Your task to perform on an android device: Go to display settings Image 0: 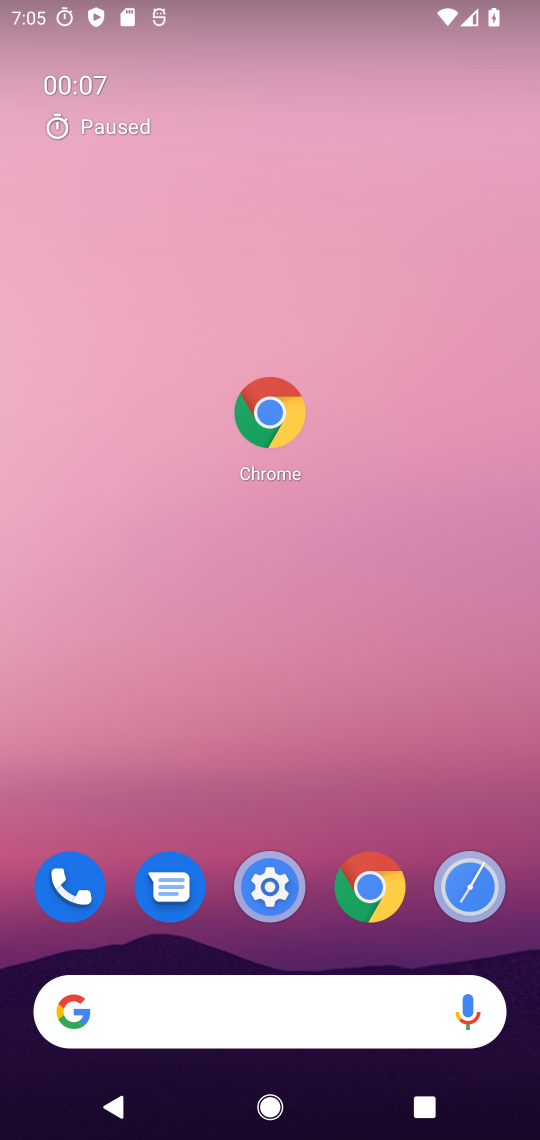
Step 0: drag from (190, 376) to (200, 279)
Your task to perform on an android device: Go to display settings Image 1: 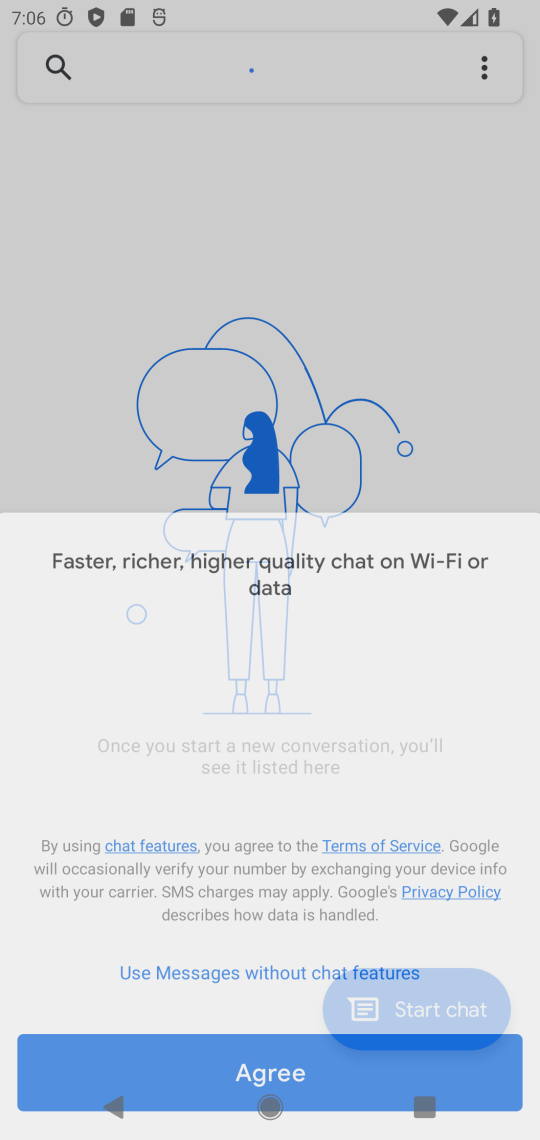
Step 1: press back button
Your task to perform on an android device: Go to display settings Image 2: 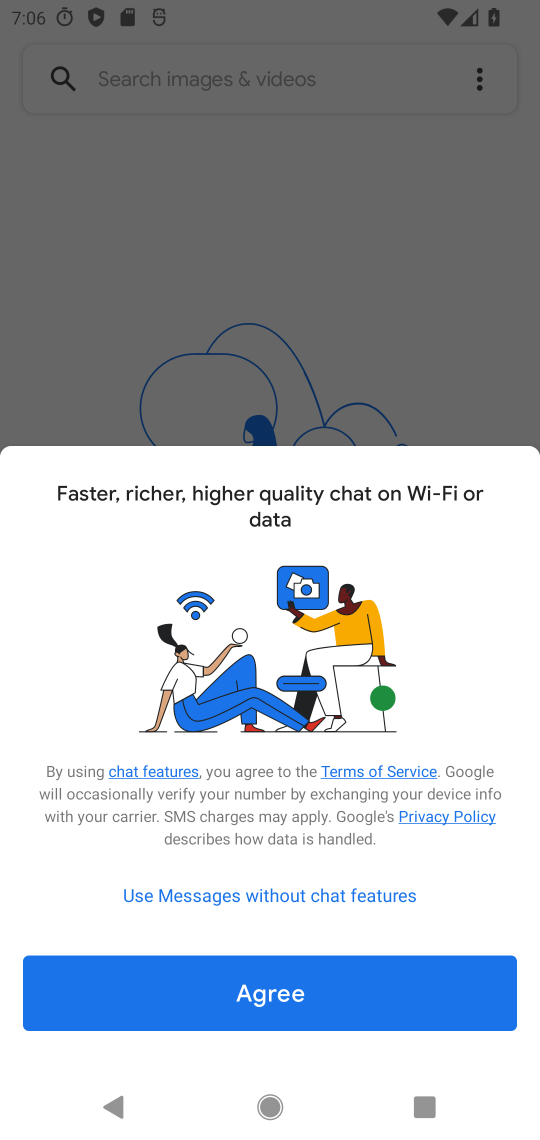
Step 2: press back button
Your task to perform on an android device: Go to display settings Image 3: 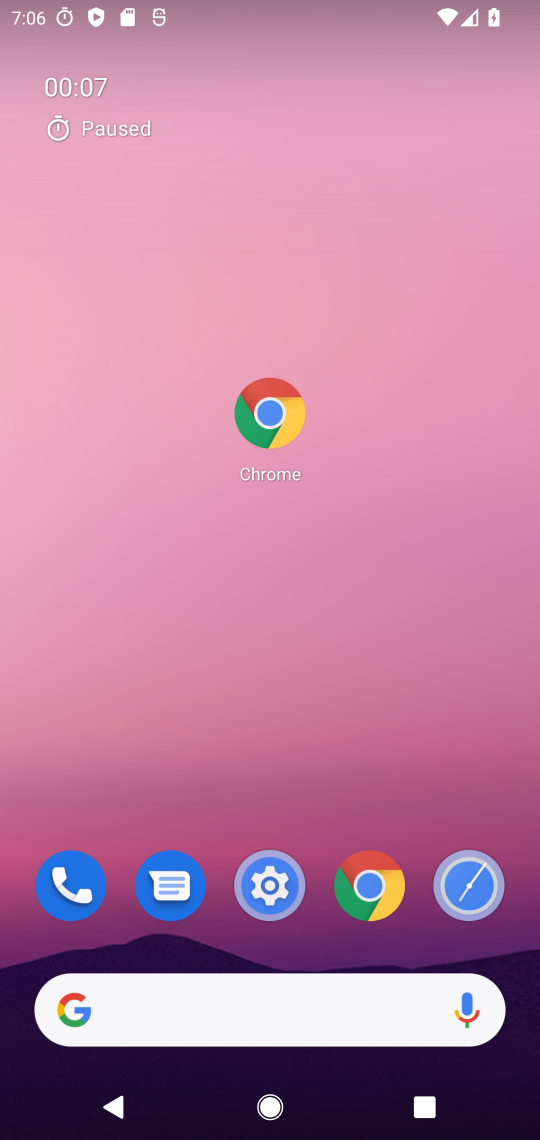
Step 3: press back button
Your task to perform on an android device: Go to display settings Image 4: 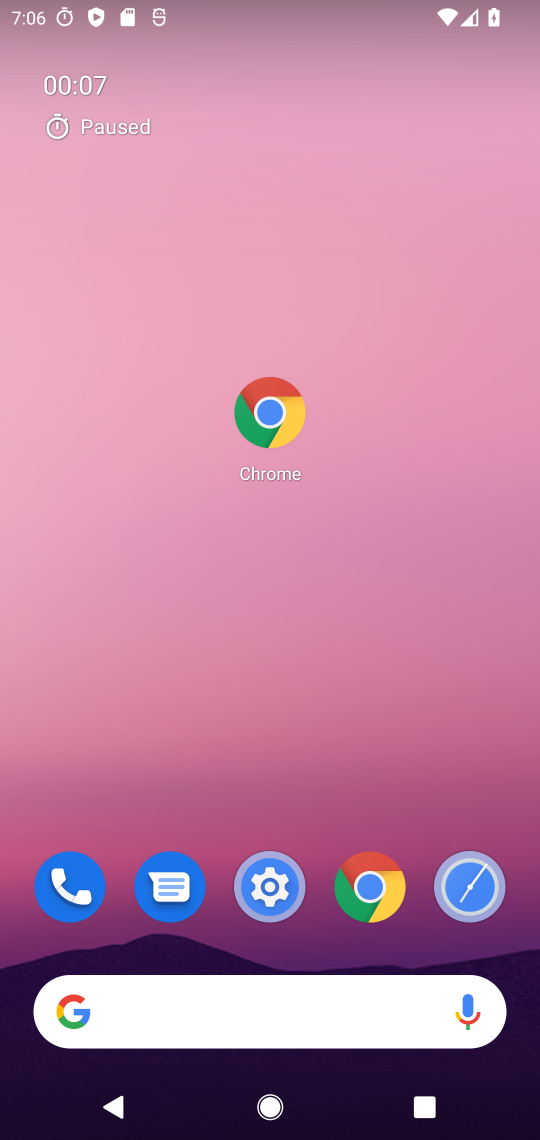
Step 4: press home button
Your task to perform on an android device: Go to display settings Image 5: 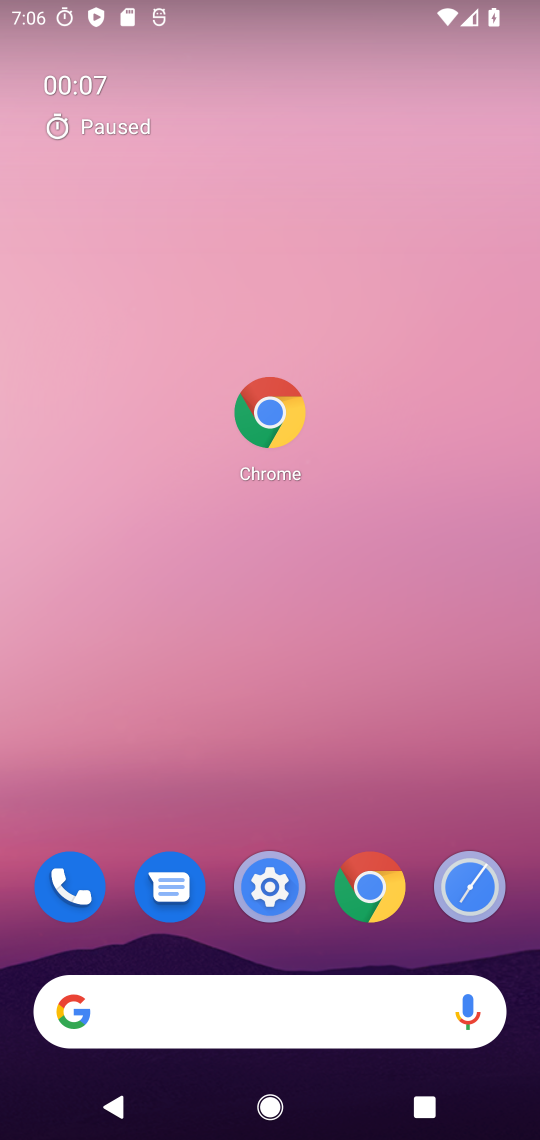
Step 5: drag from (287, 989) to (275, 234)
Your task to perform on an android device: Go to display settings Image 6: 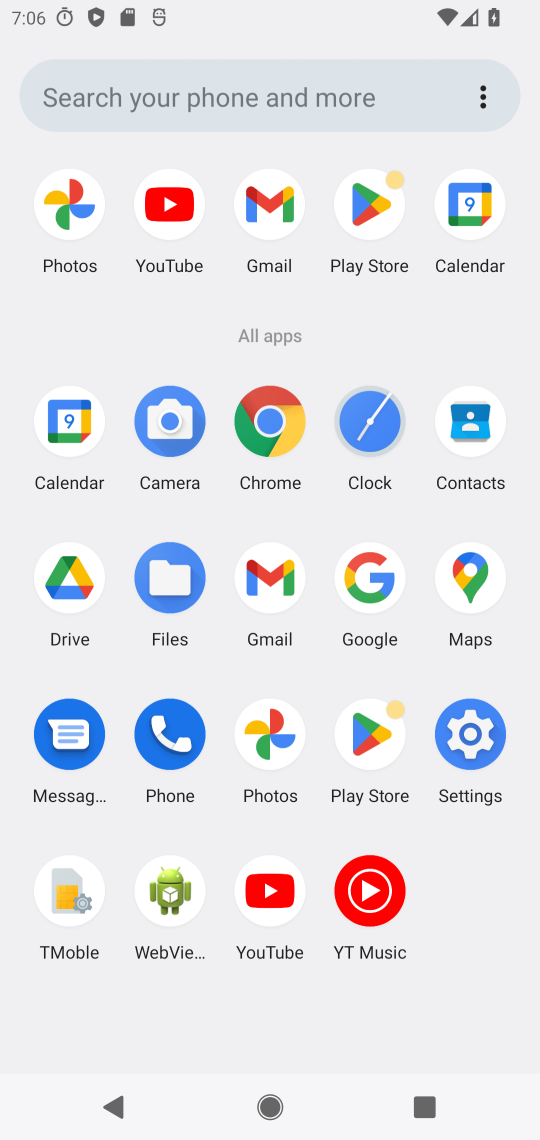
Step 6: drag from (297, 803) to (233, 275)
Your task to perform on an android device: Go to display settings Image 7: 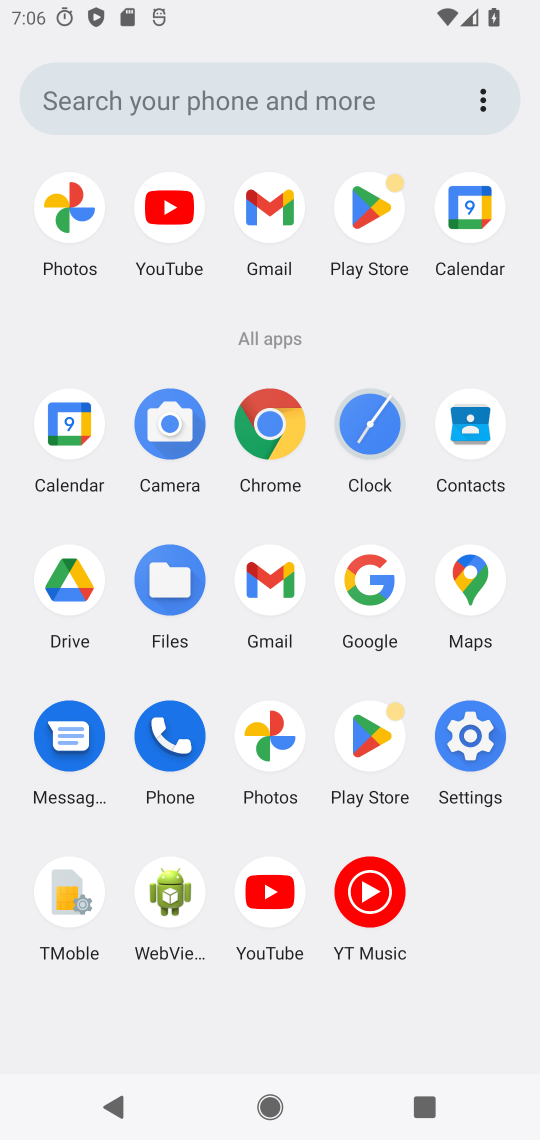
Step 7: click (484, 739)
Your task to perform on an android device: Go to display settings Image 8: 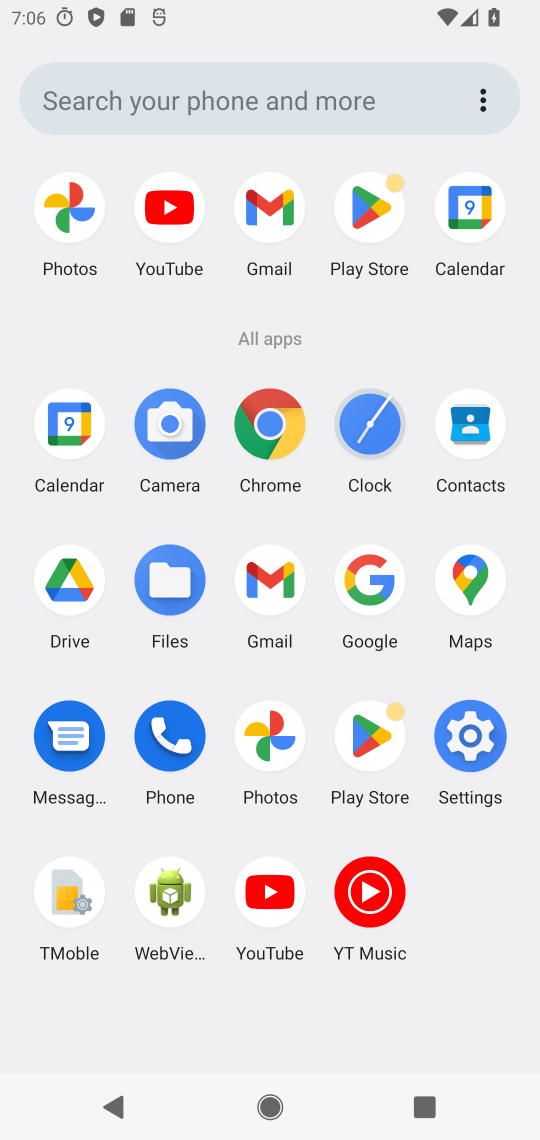
Step 8: click (472, 748)
Your task to perform on an android device: Go to display settings Image 9: 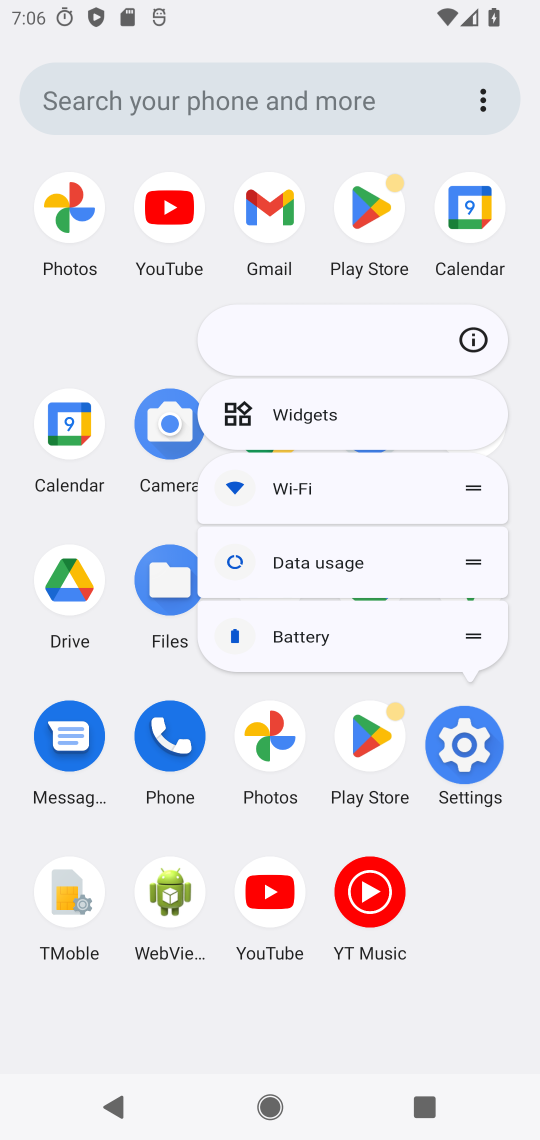
Step 9: click (473, 751)
Your task to perform on an android device: Go to display settings Image 10: 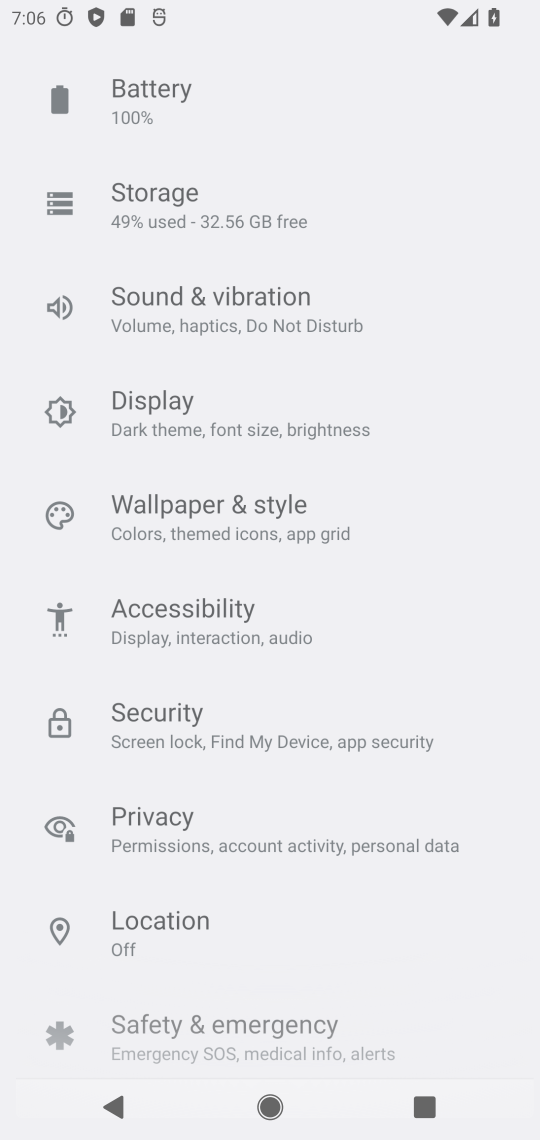
Step 10: click (473, 751)
Your task to perform on an android device: Go to display settings Image 11: 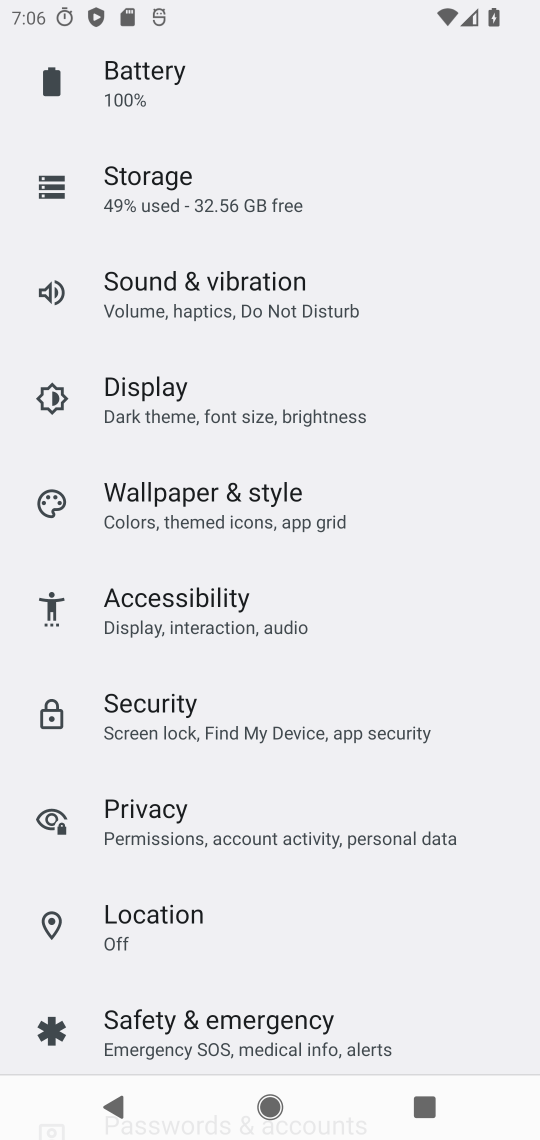
Step 11: click (479, 752)
Your task to perform on an android device: Go to display settings Image 12: 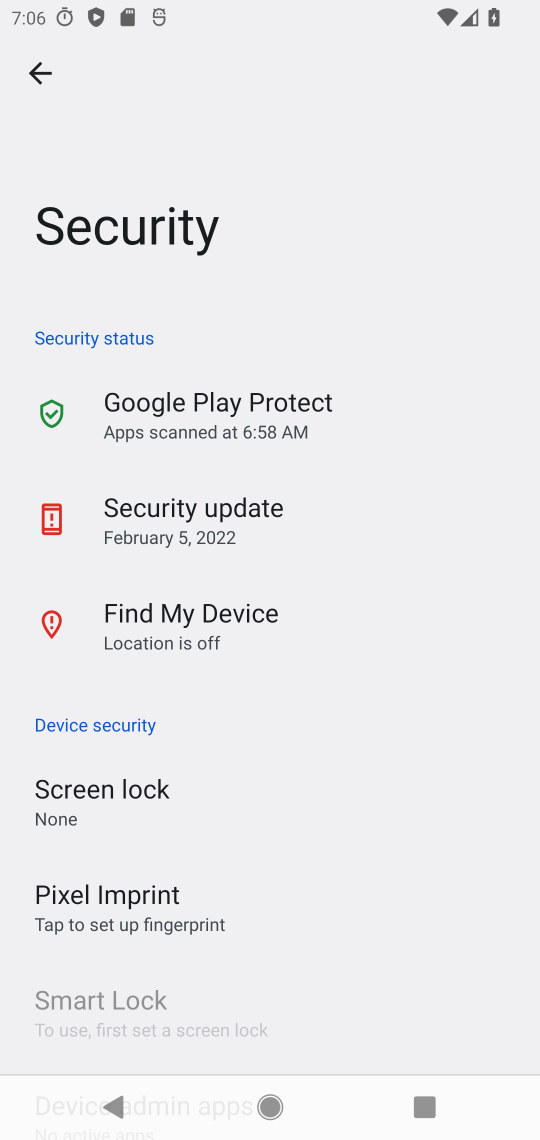
Step 12: click (31, 64)
Your task to perform on an android device: Go to display settings Image 13: 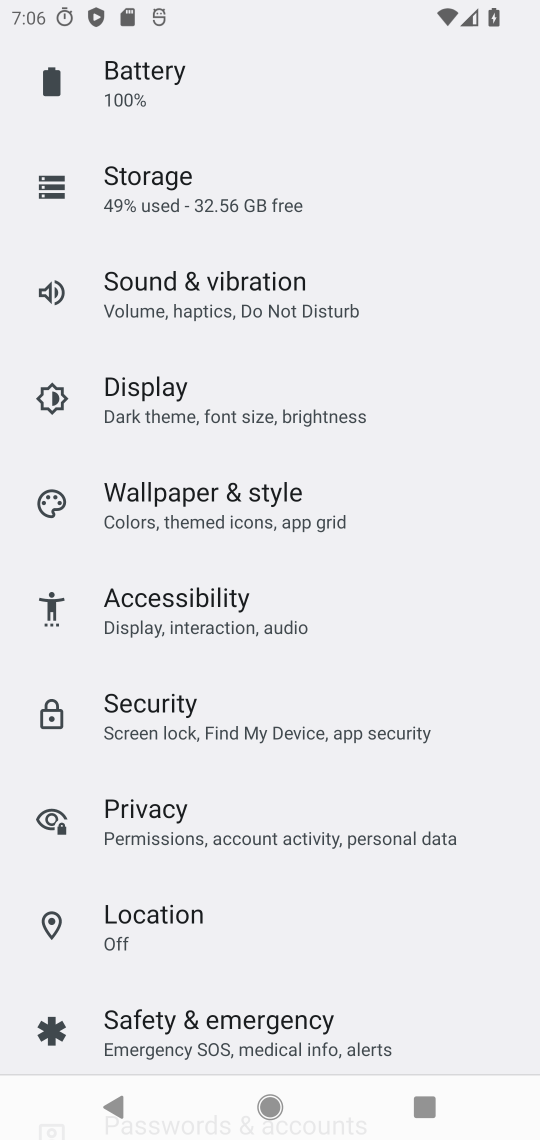
Step 13: click (140, 391)
Your task to perform on an android device: Go to display settings Image 14: 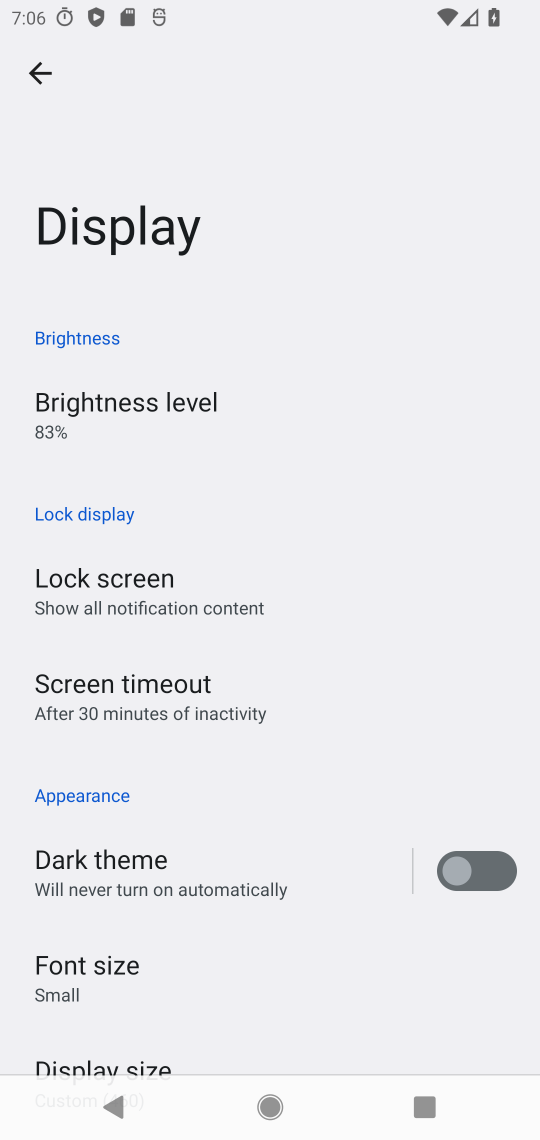
Step 14: task complete